Your task to perform on an android device: Open the map Image 0: 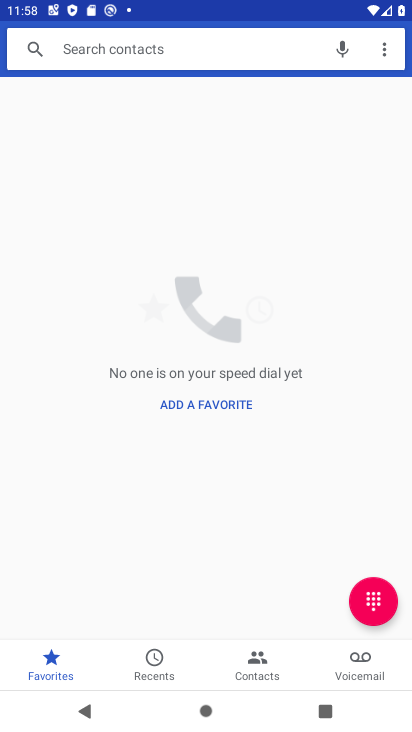
Step 0: press home button
Your task to perform on an android device: Open the map Image 1: 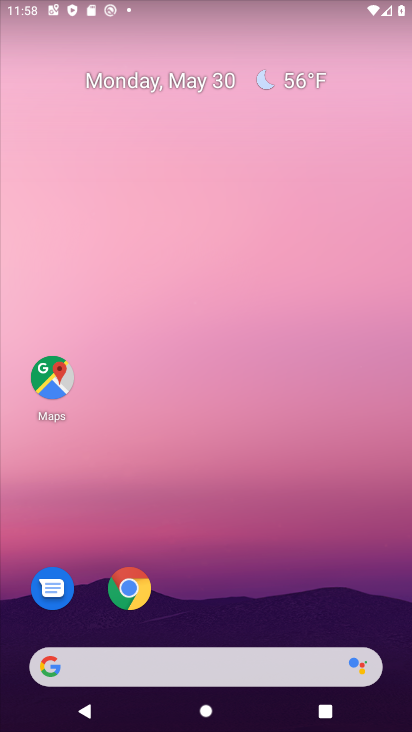
Step 1: click (57, 382)
Your task to perform on an android device: Open the map Image 2: 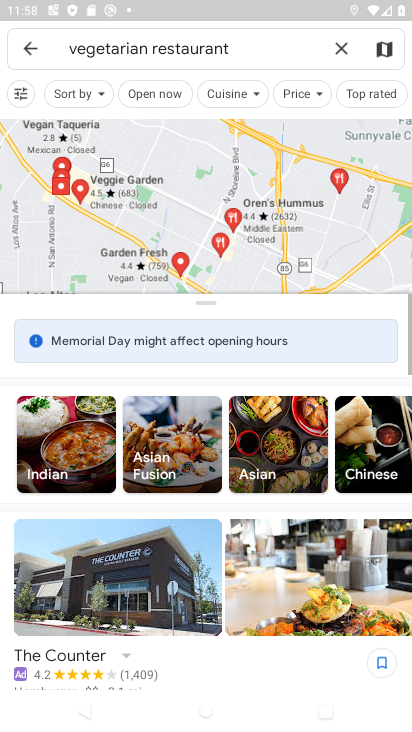
Step 2: task complete